Your task to perform on an android device: Go to Google Image 0: 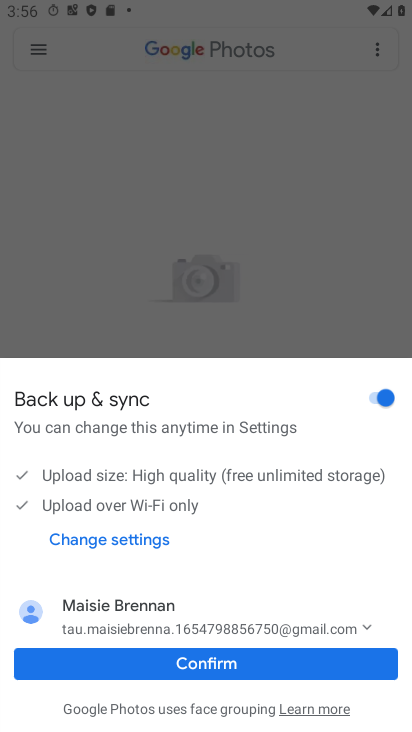
Step 0: press home button
Your task to perform on an android device: Go to Google Image 1: 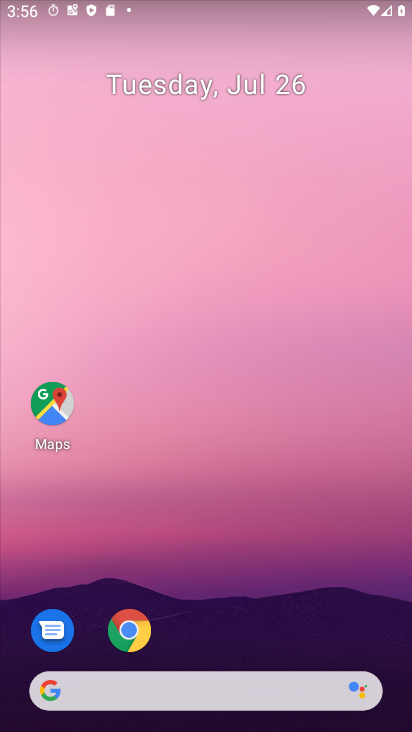
Step 1: drag from (234, 643) to (159, 118)
Your task to perform on an android device: Go to Google Image 2: 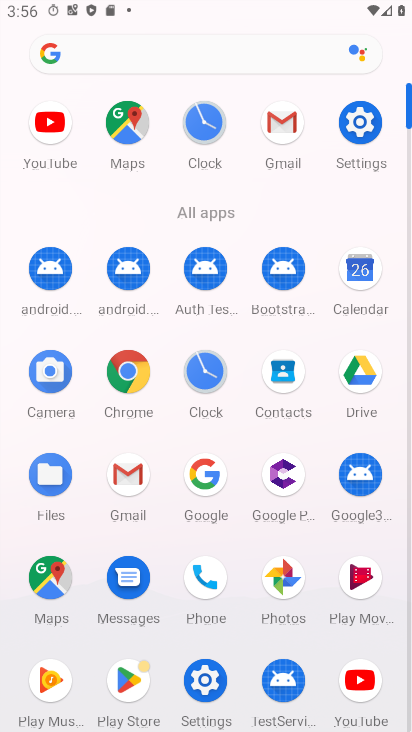
Step 2: click (195, 482)
Your task to perform on an android device: Go to Google Image 3: 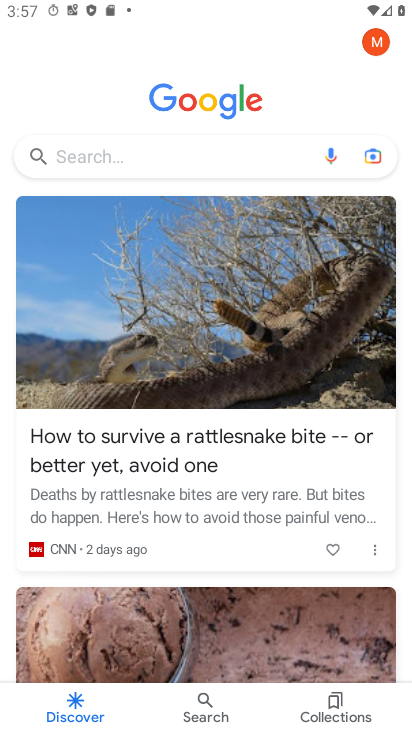
Step 3: task complete